Your task to perform on an android device: Go to accessibility settings Image 0: 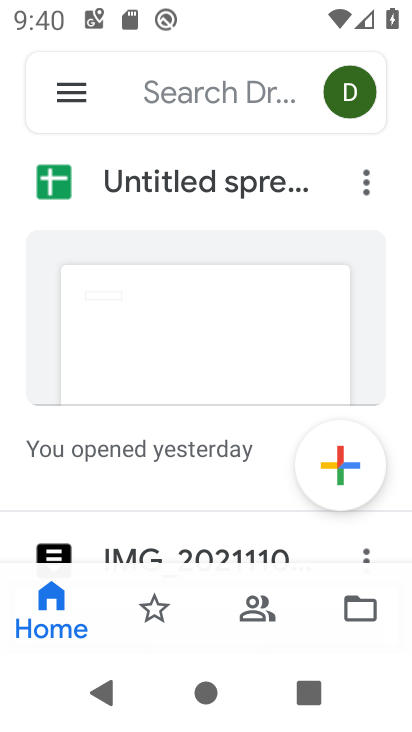
Step 0: press home button
Your task to perform on an android device: Go to accessibility settings Image 1: 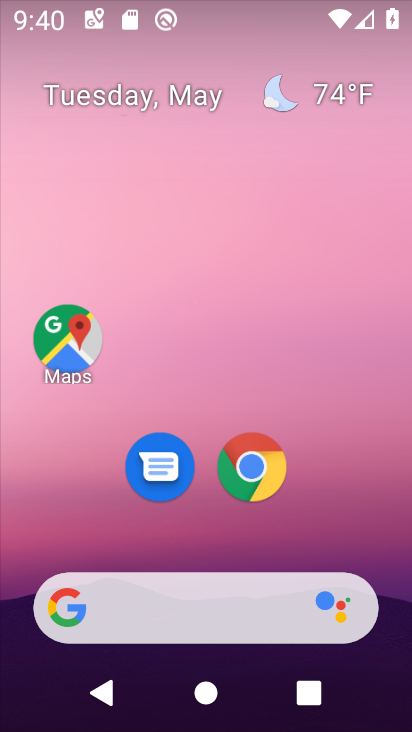
Step 1: drag from (349, 497) to (360, 182)
Your task to perform on an android device: Go to accessibility settings Image 2: 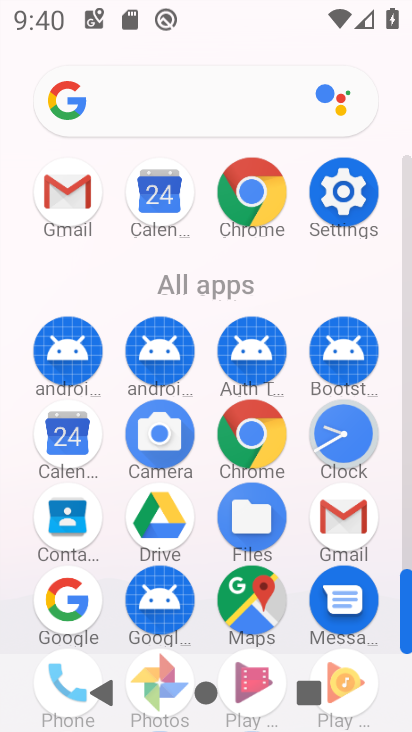
Step 2: click (356, 209)
Your task to perform on an android device: Go to accessibility settings Image 3: 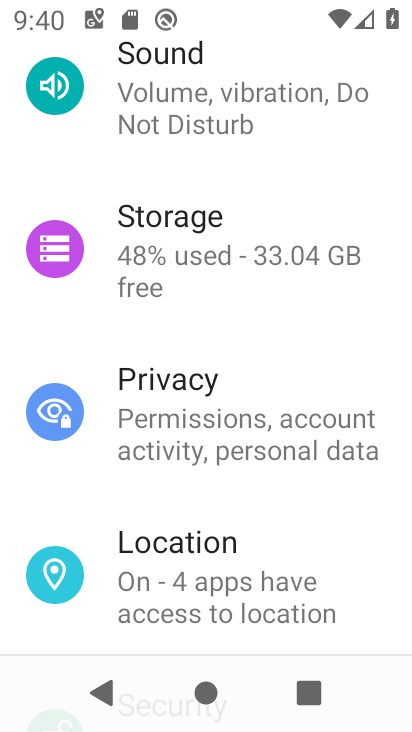
Step 3: drag from (294, 528) to (335, 80)
Your task to perform on an android device: Go to accessibility settings Image 4: 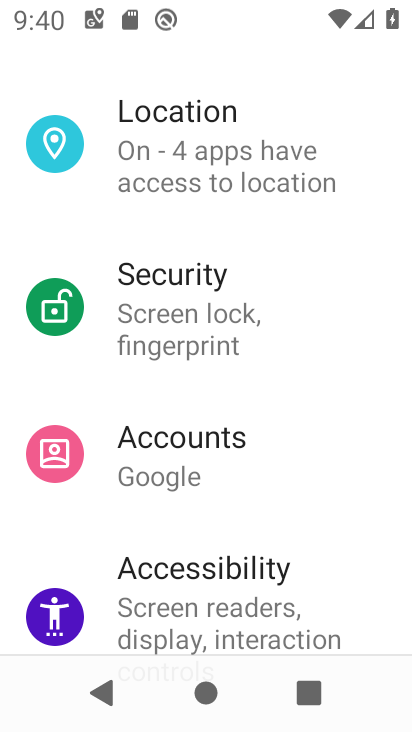
Step 4: click (240, 560)
Your task to perform on an android device: Go to accessibility settings Image 5: 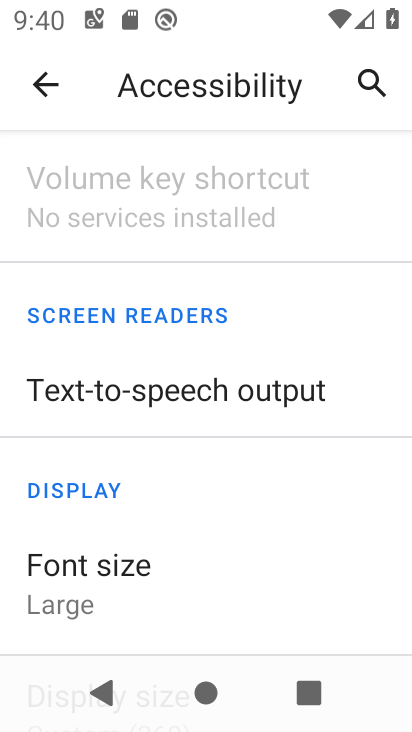
Step 5: task complete